Your task to perform on an android device: find snoozed emails in the gmail app Image 0: 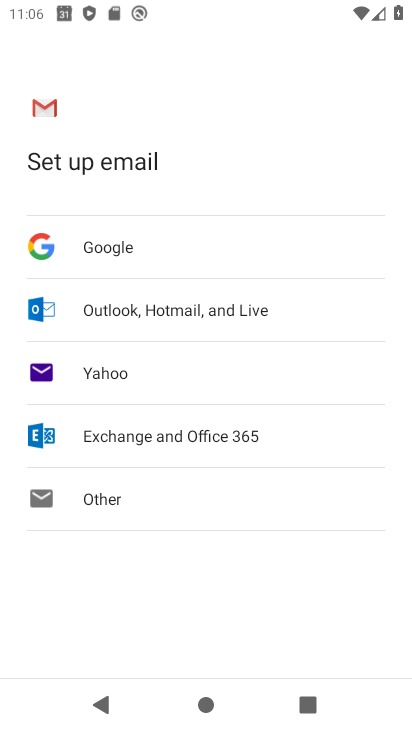
Step 0: press home button
Your task to perform on an android device: find snoozed emails in the gmail app Image 1: 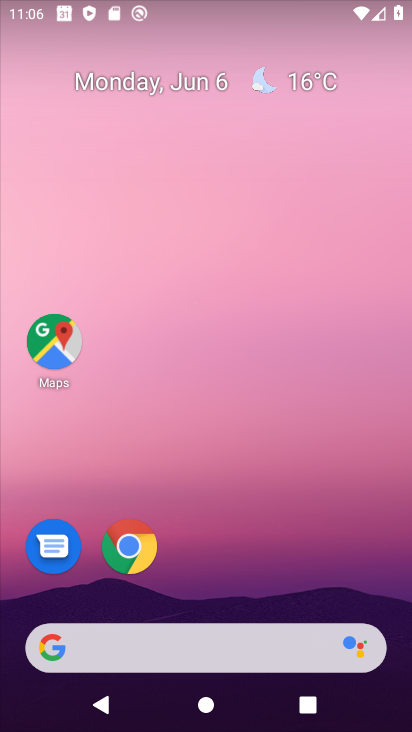
Step 1: drag from (263, 547) to (268, 103)
Your task to perform on an android device: find snoozed emails in the gmail app Image 2: 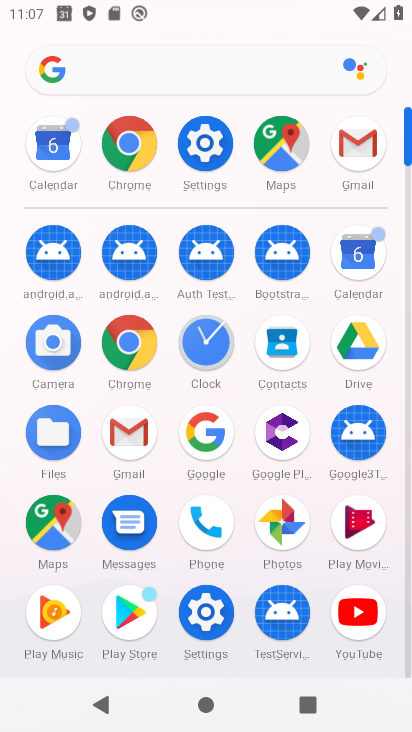
Step 2: click (357, 144)
Your task to perform on an android device: find snoozed emails in the gmail app Image 3: 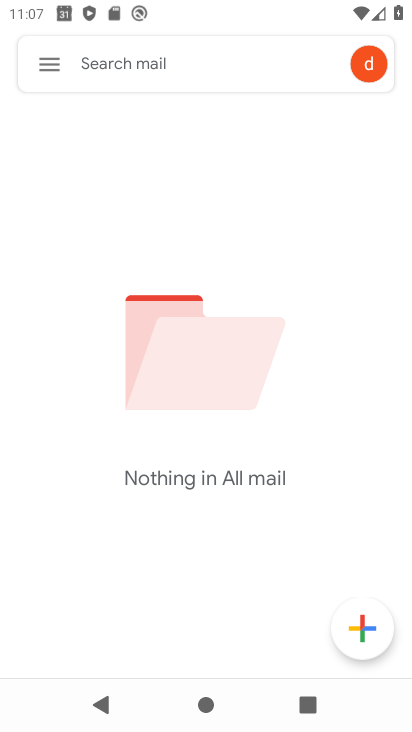
Step 3: click (47, 62)
Your task to perform on an android device: find snoozed emails in the gmail app Image 4: 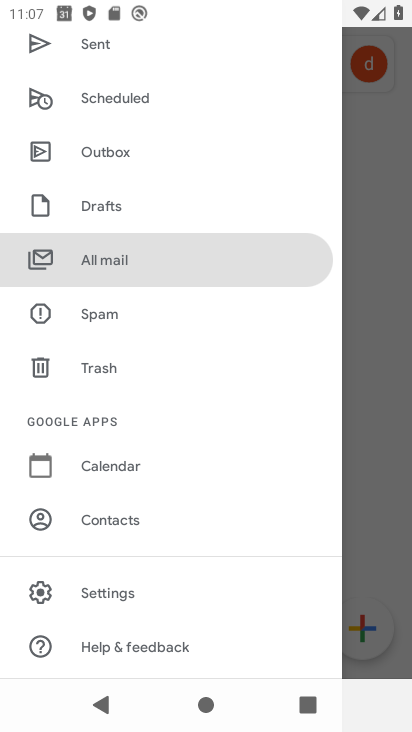
Step 4: drag from (111, 139) to (85, 404)
Your task to perform on an android device: find snoozed emails in the gmail app Image 5: 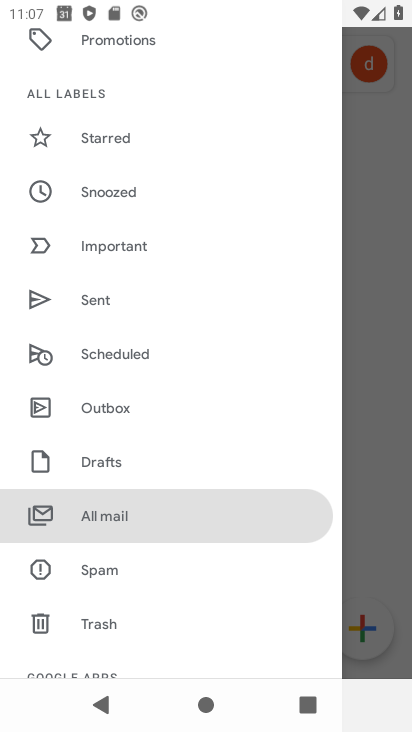
Step 5: click (109, 199)
Your task to perform on an android device: find snoozed emails in the gmail app Image 6: 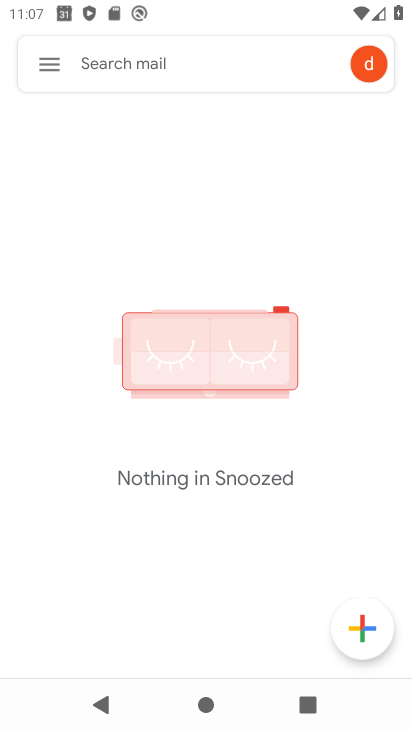
Step 6: task complete